Your task to perform on an android device: Open Chrome and go to settings Image 0: 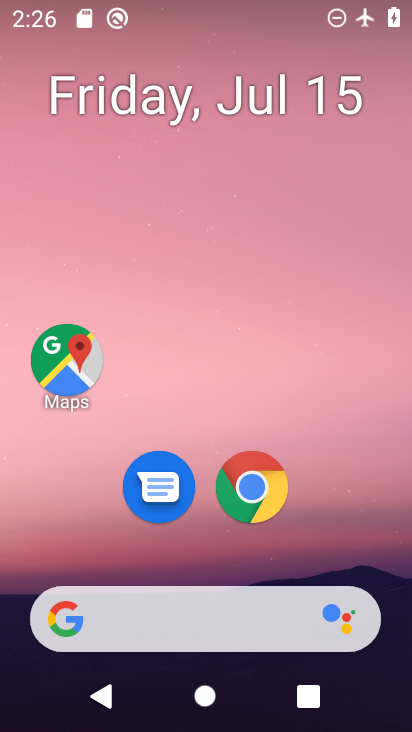
Step 0: click (266, 504)
Your task to perform on an android device: Open Chrome and go to settings Image 1: 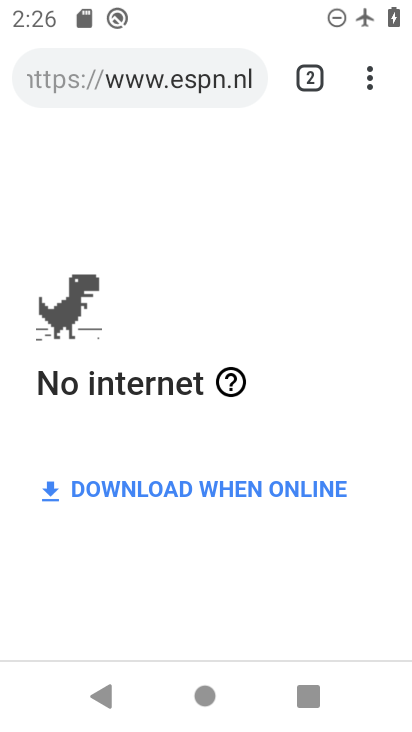
Step 1: click (363, 93)
Your task to perform on an android device: Open Chrome and go to settings Image 2: 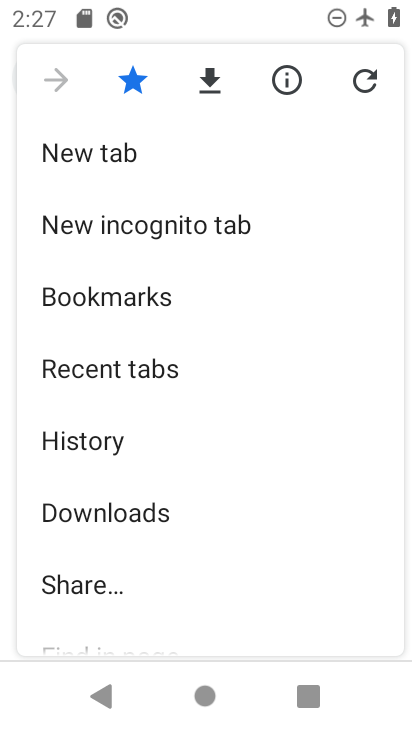
Step 2: drag from (153, 548) to (227, 230)
Your task to perform on an android device: Open Chrome and go to settings Image 3: 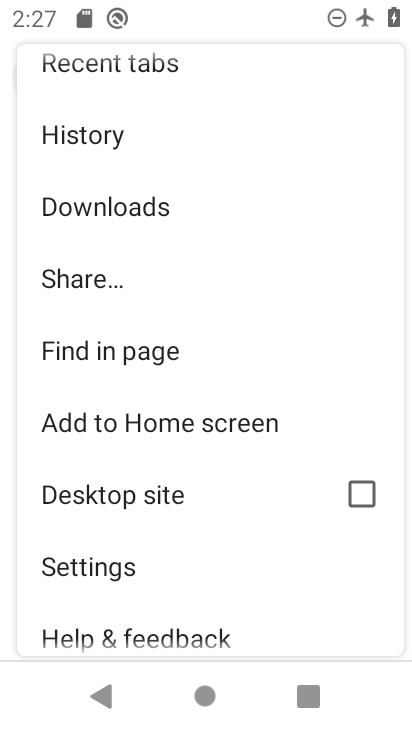
Step 3: click (123, 573)
Your task to perform on an android device: Open Chrome and go to settings Image 4: 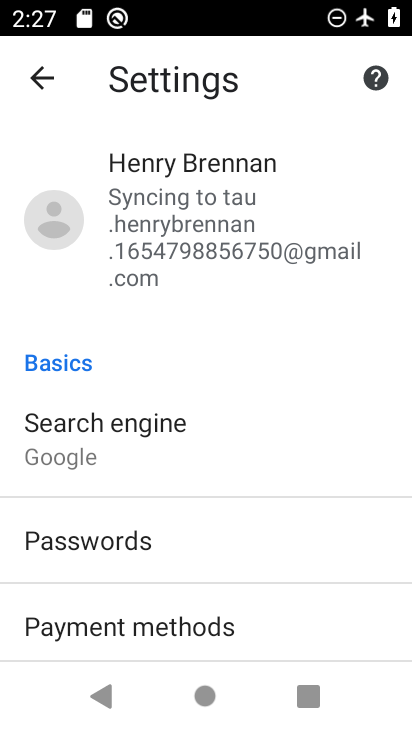
Step 4: task complete